Your task to perform on an android device: Open my contact list Image 0: 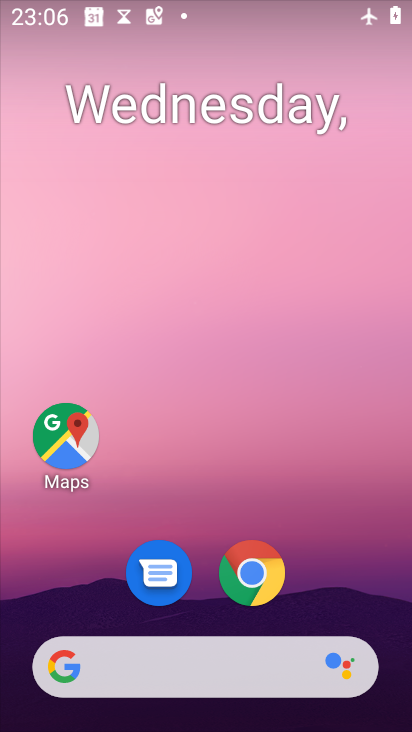
Step 0: drag from (324, 584) to (321, 273)
Your task to perform on an android device: Open my contact list Image 1: 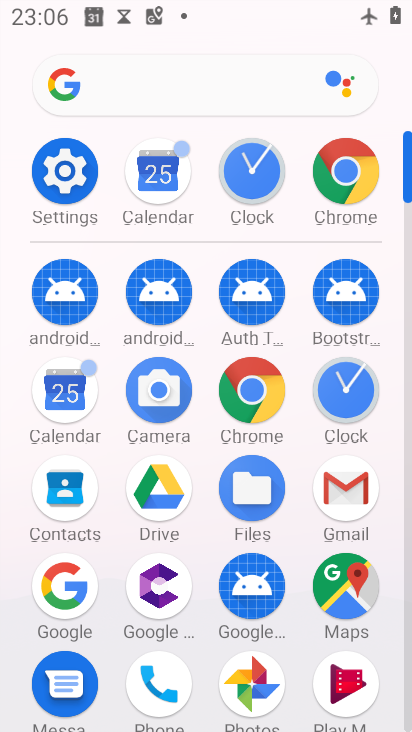
Step 1: drag from (215, 600) to (227, 322)
Your task to perform on an android device: Open my contact list Image 2: 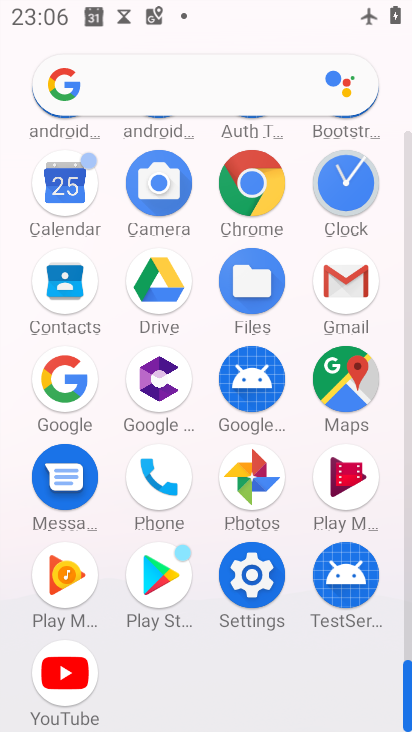
Step 2: click (153, 490)
Your task to perform on an android device: Open my contact list Image 3: 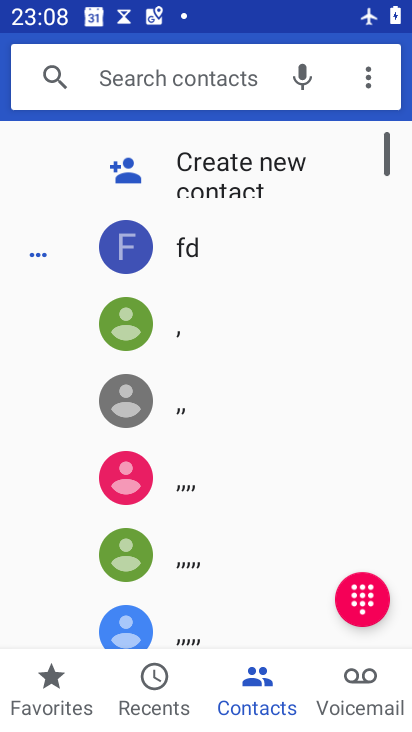
Step 3: task complete